Your task to perform on an android device: check google app version Image 0: 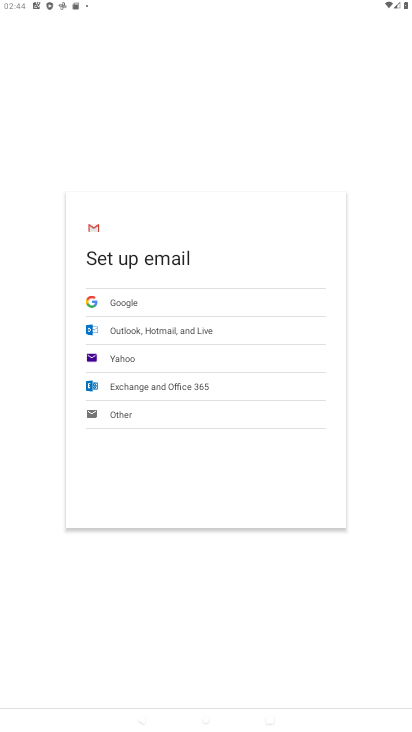
Step 0: press home button
Your task to perform on an android device: check google app version Image 1: 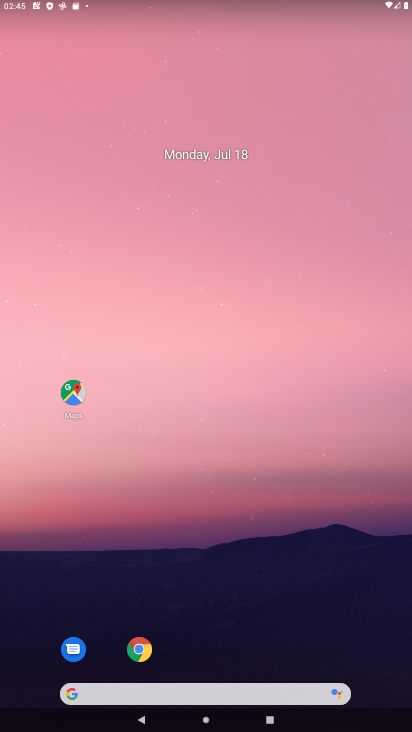
Step 1: drag from (180, 708) to (162, 127)
Your task to perform on an android device: check google app version Image 2: 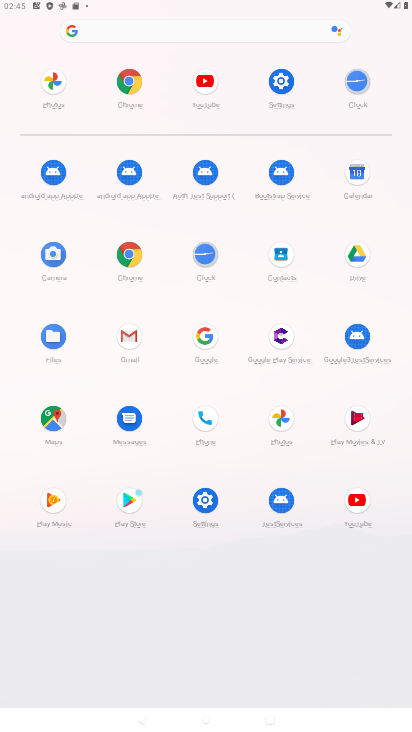
Step 2: click (202, 343)
Your task to perform on an android device: check google app version Image 3: 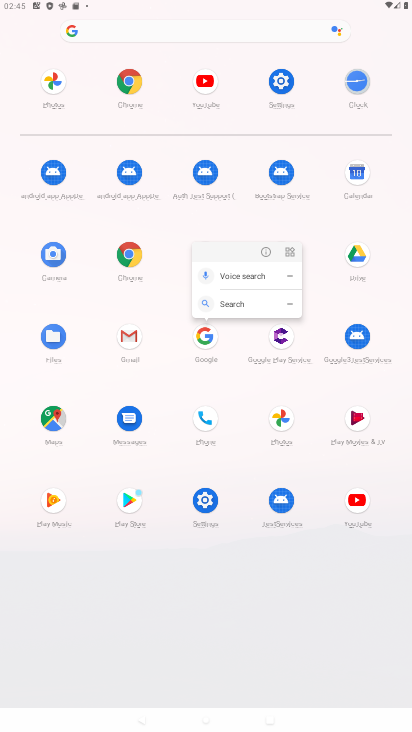
Step 3: click (266, 251)
Your task to perform on an android device: check google app version Image 4: 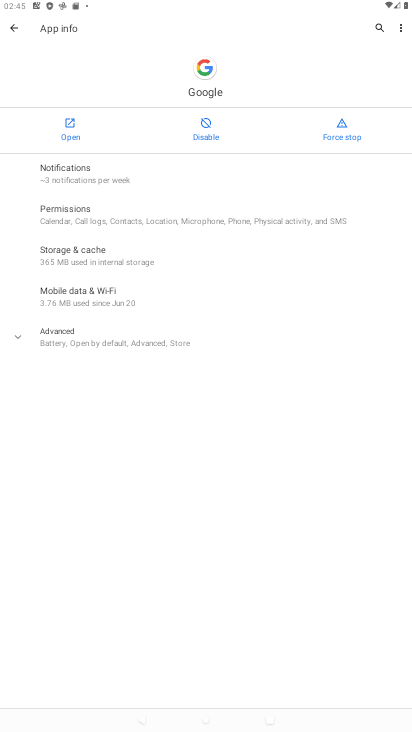
Step 4: click (175, 334)
Your task to perform on an android device: check google app version Image 5: 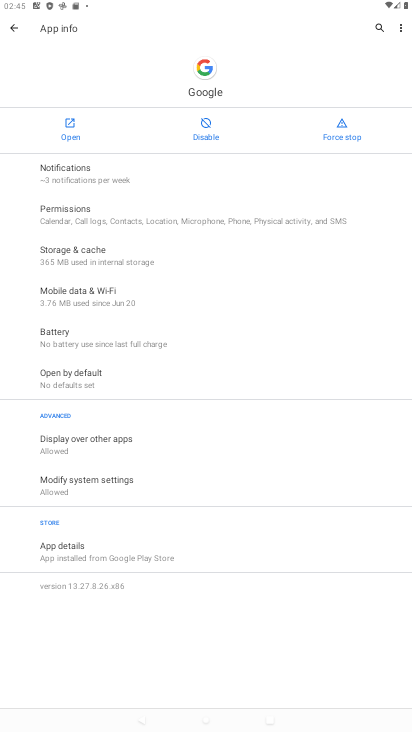
Step 5: task complete